Your task to perform on an android device: Go to CNN.com Image 0: 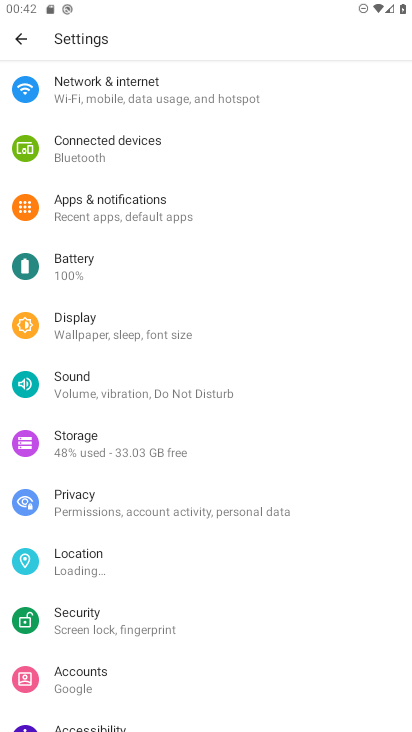
Step 0: press home button
Your task to perform on an android device: Go to CNN.com Image 1: 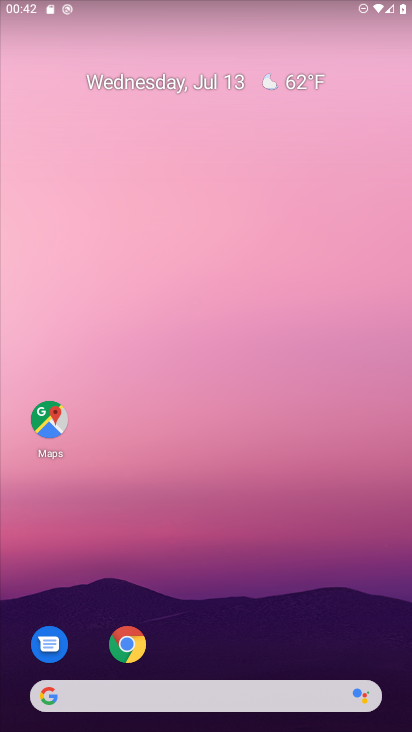
Step 1: click (116, 641)
Your task to perform on an android device: Go to CNN.com Image 2: 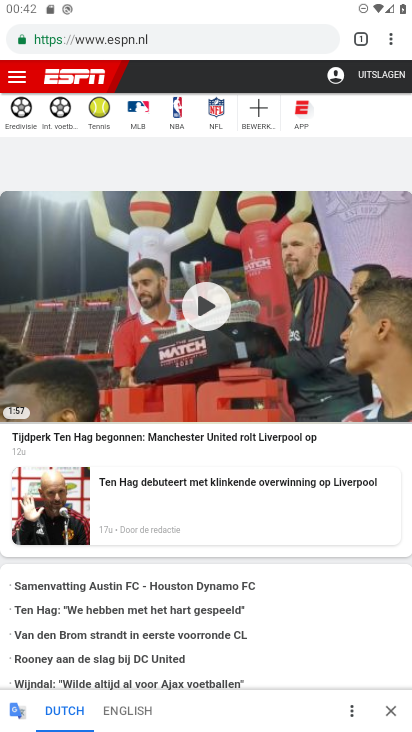
Step 2: click (354, 31)
Your task to perform on an android device: Go to CNN.com Image 3: 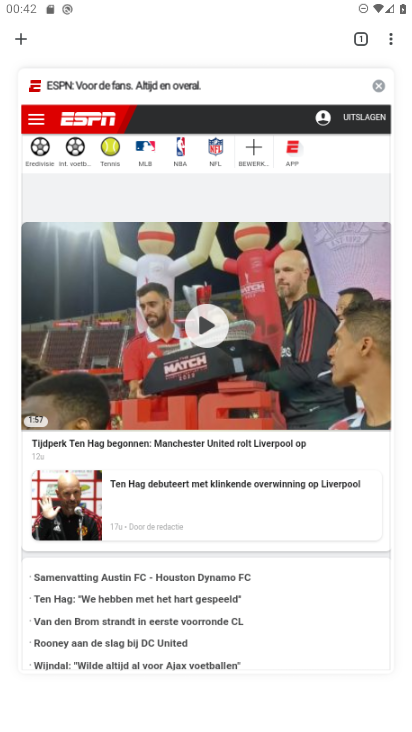
Step 3: click (27, 39)
Your task to perform on an android device: Go to CNN.com Image 4: 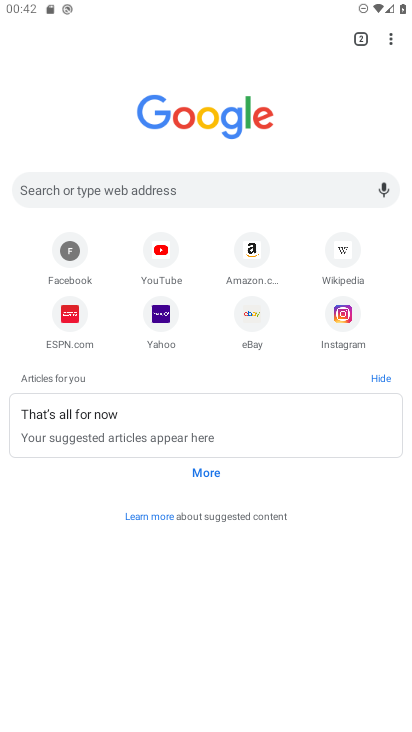
Step 4: click (191, 195)
Your task to perform on an android device: Go to CNN.com Image 5: 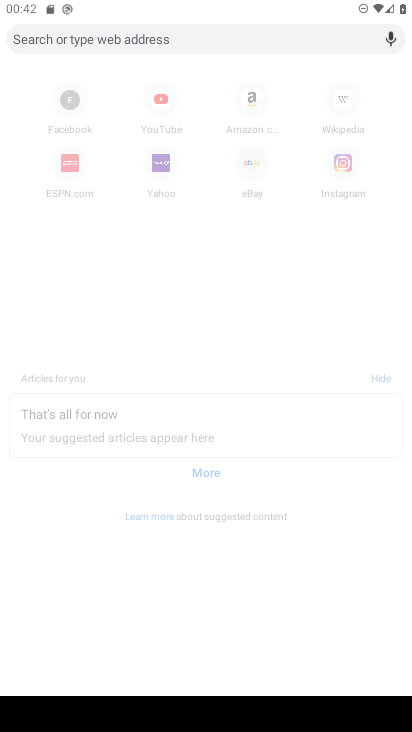
Step 5: type "cnn"
Your task to perform on an android device: Go to CNN.com Image 6: 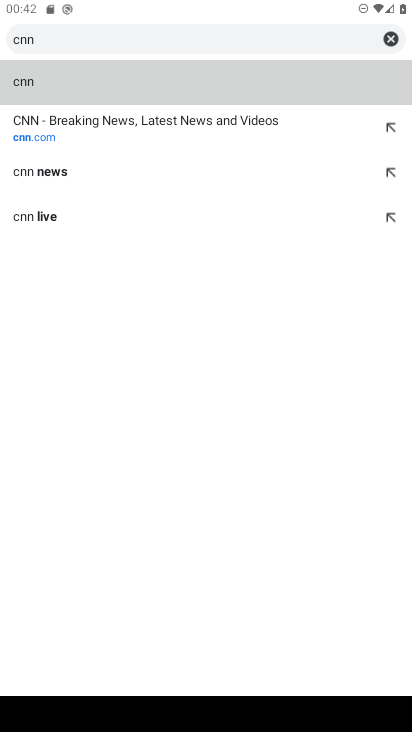
Step 6: click (69, 136)
Your task to perform on an android device: Go to CNN.com Image 7: 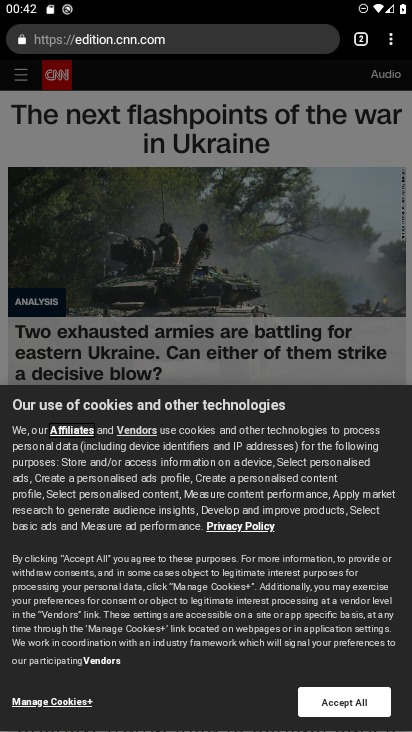
Step 7: task complete